Your task to perform on an android device: turn on improve location accuracy Image 0: 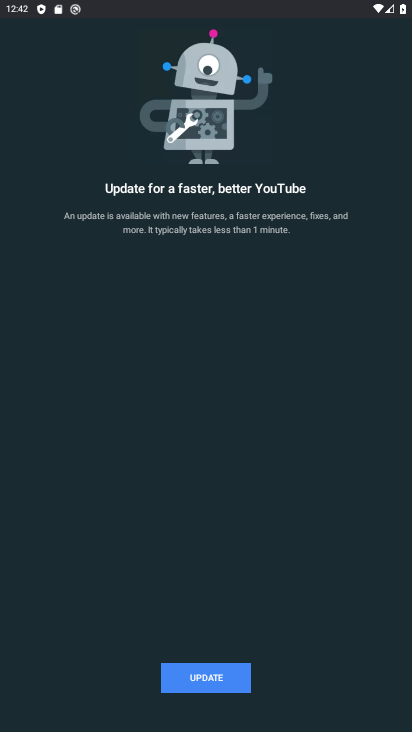
Step 0: press home button
Your task to perform on an android device: turn on improve location accuracy Image 1: 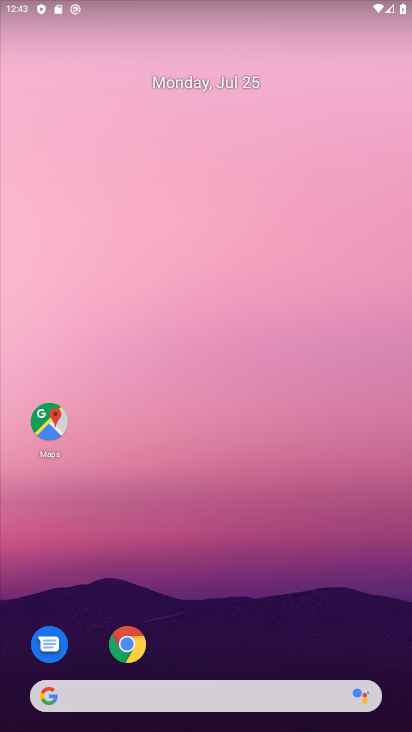
Step 1: drag from (204, 727) to (225, 46)
Your task to perform on an android device: turn on improve location accuracy Image 2: 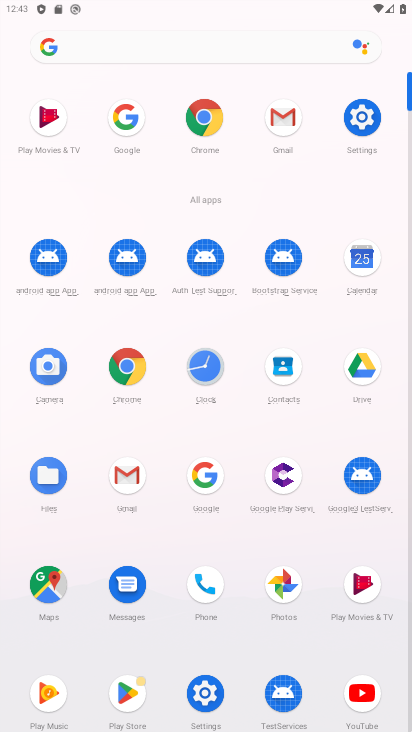
Step 2: click (364, 126)
Your task to perform on an android device: turn on improve location accuracy Image 3: 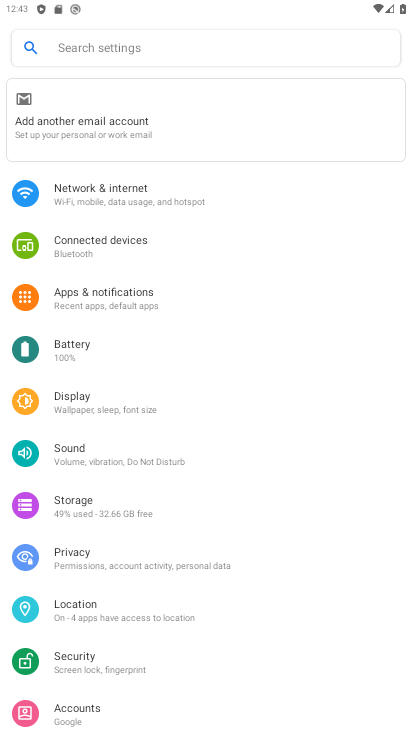
Step 3: click (88, 607)
Your task to perform on an android device: turn on improve location accuracy Image 4: 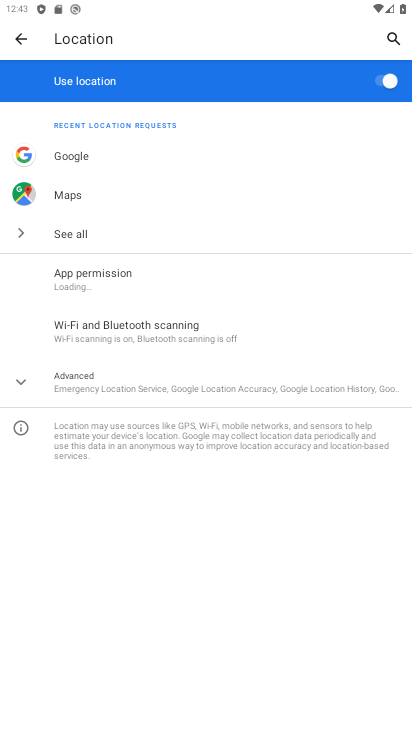
Step 4: click (114, 383)
Your task to perform on an android device: turn on improve location accuracy Image 5: 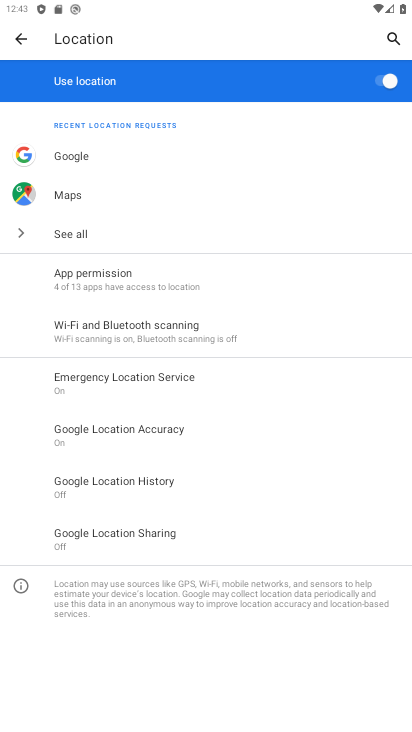
Step 5: click (150, 426)
Your task to perform on an android device: turn on improve location accuracy Image 6: 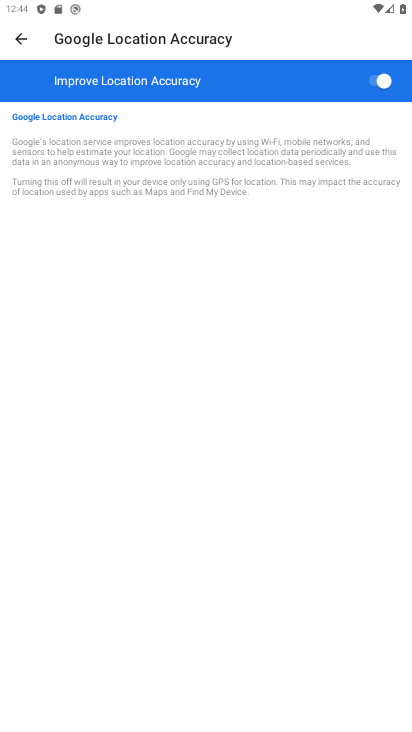
Step 6: task complete